Your task to perform on an android device: Open sound settings Image 0: 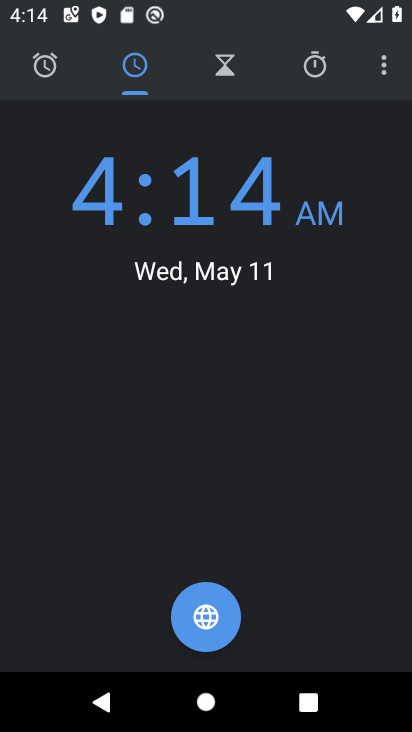
Step 0: press home button
Your task to perform on an android device: Open sound settings Image 1: 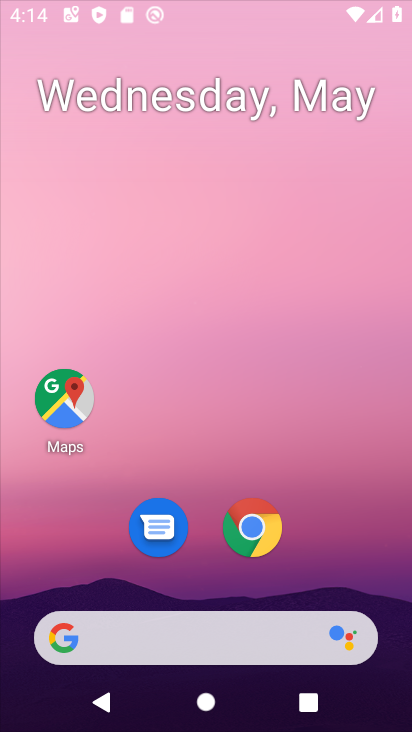
Step 1: drag from (330, 627) to (331, 215)
Your task to perform on an android device: Open sound settings Image 2: 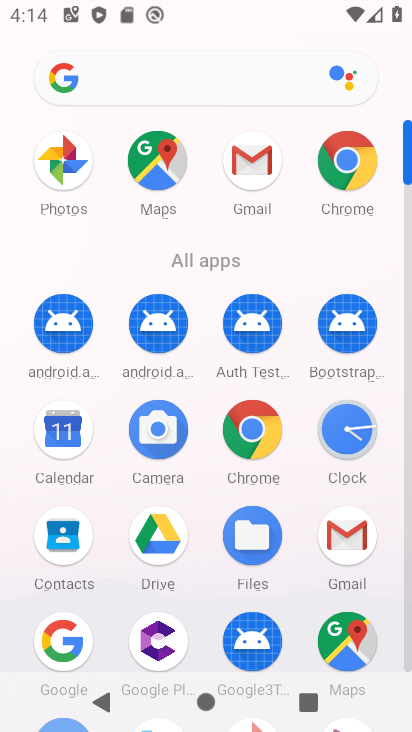
Step 2: click (405, 673)
Your task to perform on an android device: Open sound settings Image 3: 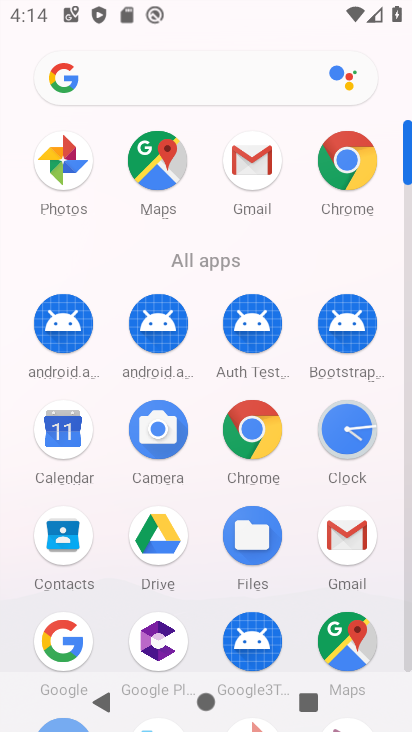
Step 3: click (409, 664)
Your task to perform on an android device: Open sound settings Image 4: 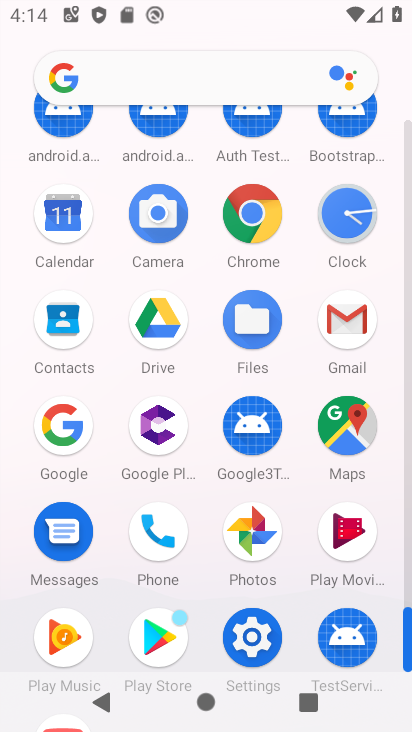
Step 4: click (253, 644)
Your task to perform on an android device: Open sound settings Image 5: 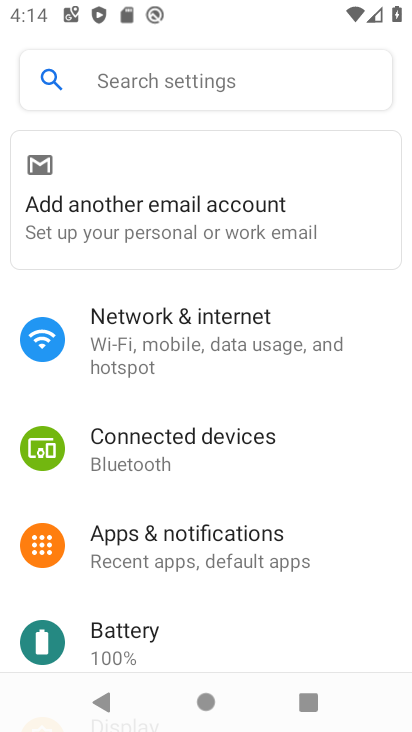
Step 5: drag from (231, 608) to (243, 134)
Your task to perform on an android device: Open sound settings Image 6: 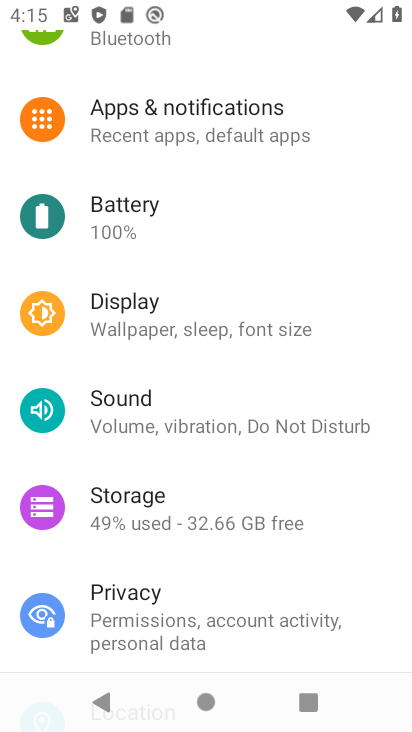
Step 6: click (176, 435)
Your task to perform on an android device: Open sound settings Image 7: 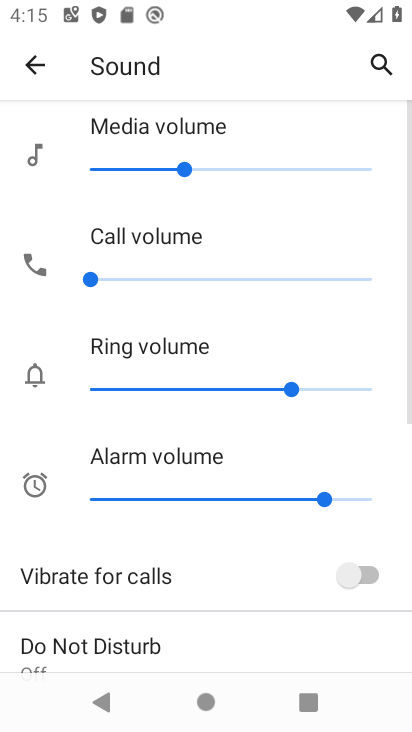
Step 7: task complete